Your task to perform on an android device: Go to eBay Image 0: 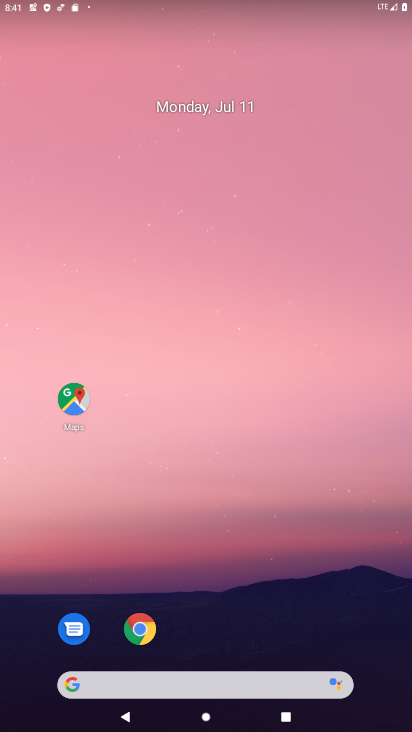
Step 0: click (141, 626)
Your task to perform on an android device: Go to eBay Image 1: 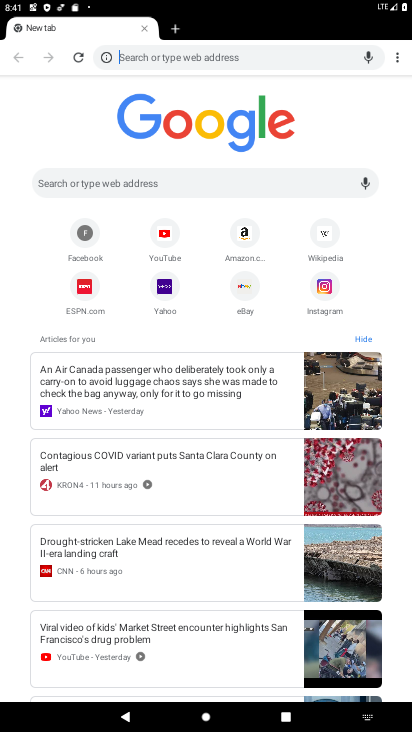
Step 1: click (250, 279)
Your task to perform on an android device: Go to eBay Image 2: 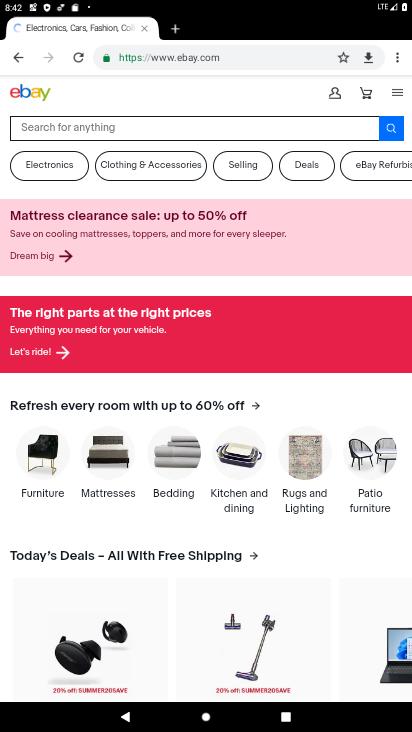
Step 2: task complete